Your task to perform on an android device: change the clock display to analog Image 0: 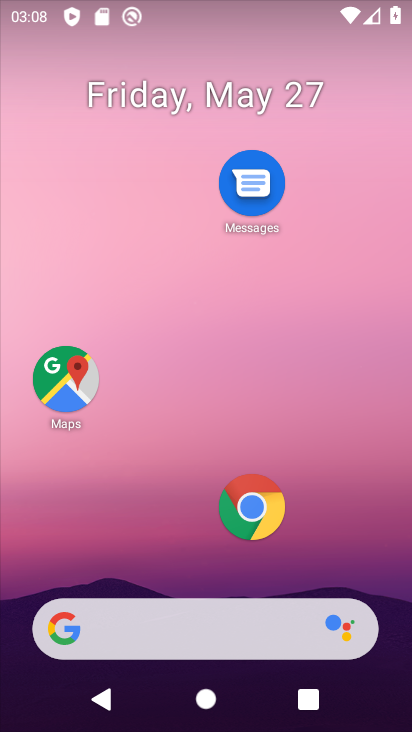
Step 0: drag from (193, 571) to (240, 42)
Your task to perform on an android device: change the clock display to analog Image 1: 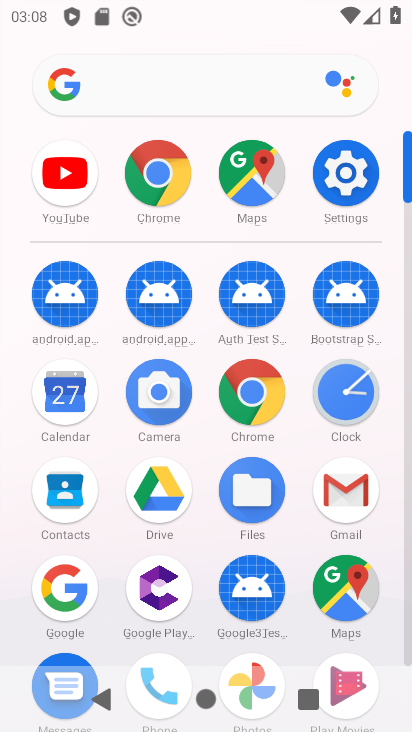
Step 1: drag from (208, 653) to (202, 248)
Your task to perform on an android device: change the clock display to analog Image 2: 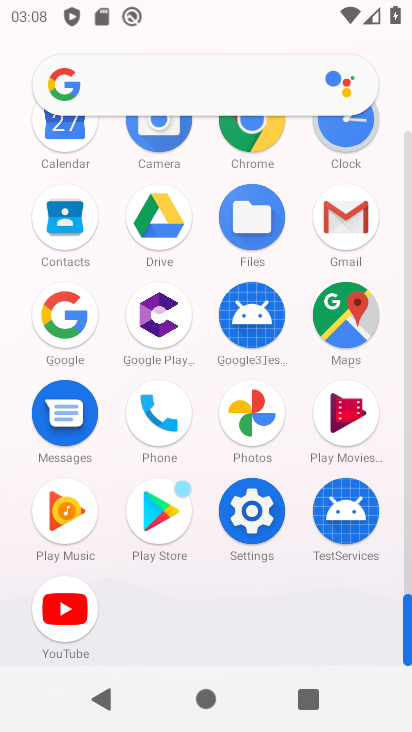
Step 2: click (350, 129)
Your task to perform on an android device: change the clock display to analog Image 3: 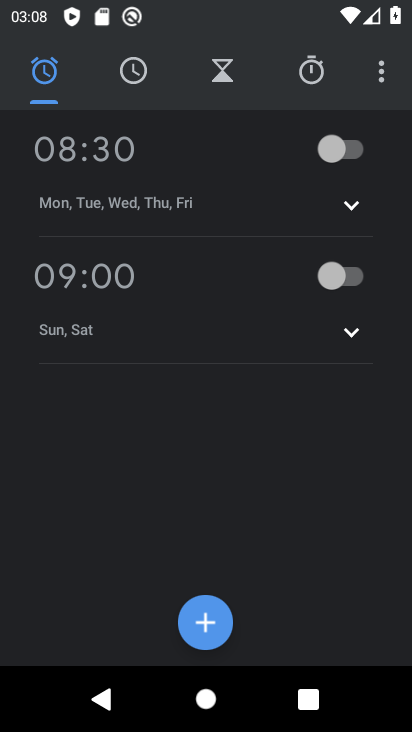
Step 3: drag from (386, 76) to (205, 148)
Your task to perform on an android device: change the clock display to analog Image 4: 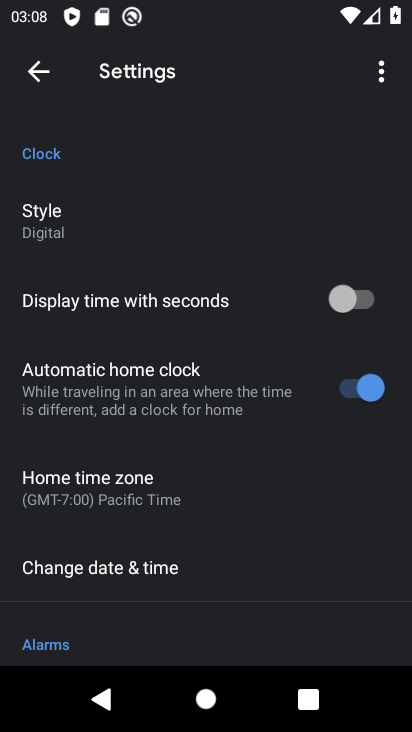
Step 4: click (81, 233)
Your task to perform on an android device: change the clock display to analog Image 5: 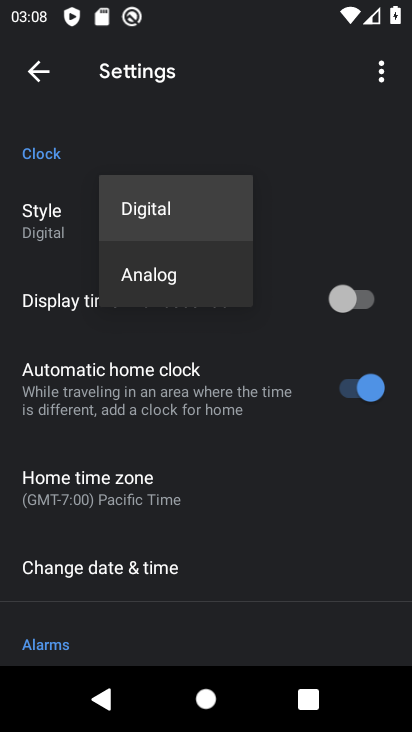
Step 5: click (175, 264)
Your task to perform on an android device: change the clock display to analog Image 6: 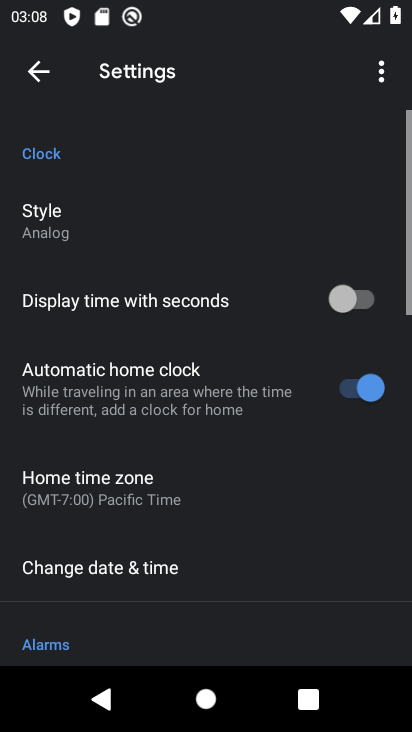
Step 6: task complete